Your task to perform on an android device: turn off airplane mode Image 0: 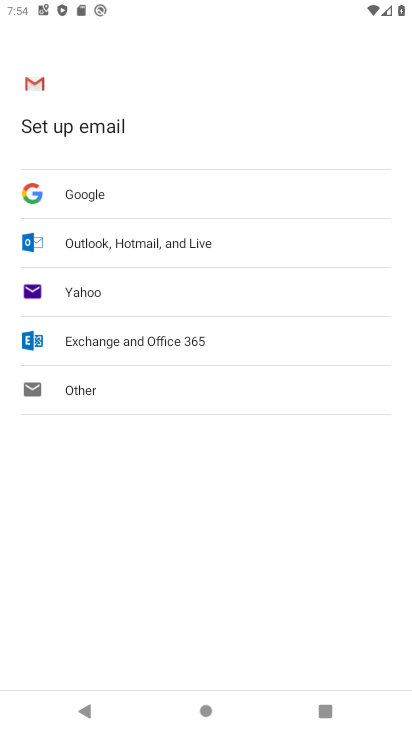
Step 0: press home button
Your task to perform on an android device: turn off airplane mode Image 1: 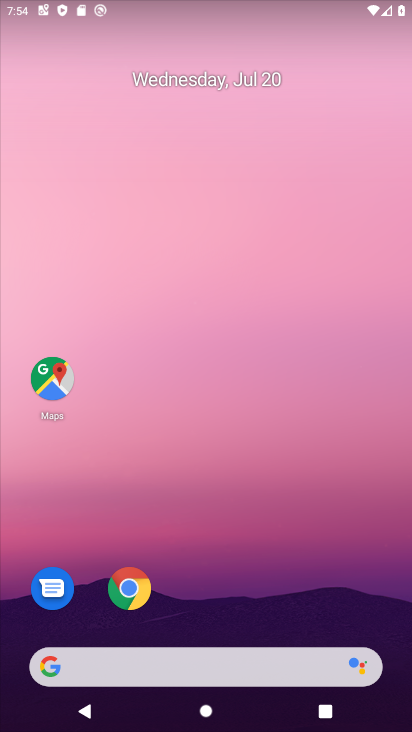
Step 1: drag from (139, 612) to (127, 177)
Your task to perform on an android device: turn off airplane mode Image 2: 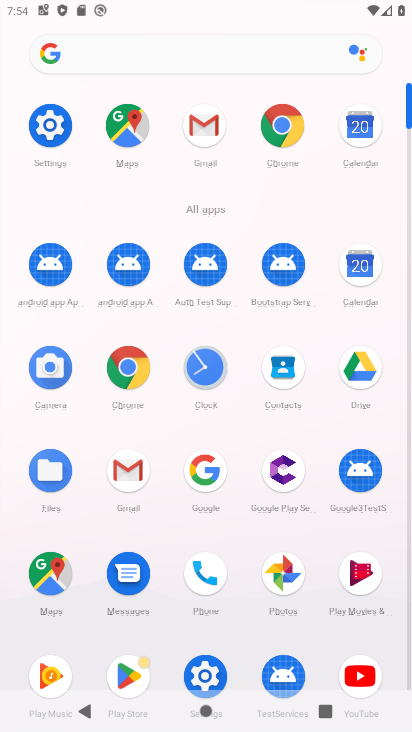
Step 2: click (48, 133)
Your task to perform on an android device: turn off airplane mode Image 3: 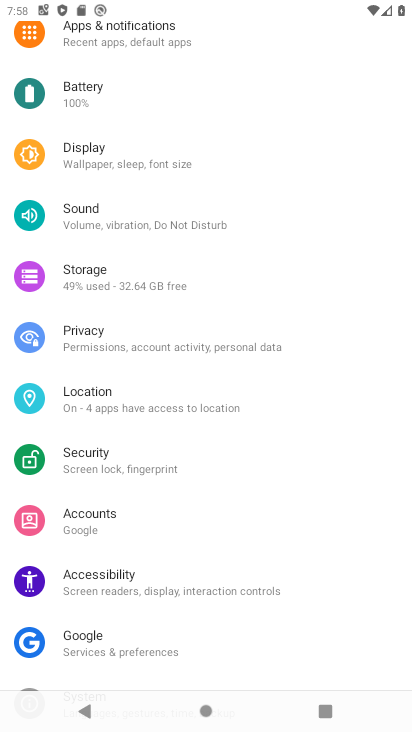
Step 3: drag from (217, 254) to (273, 496)
Your task to perform on an android device: turn off airplane mode Image 4: 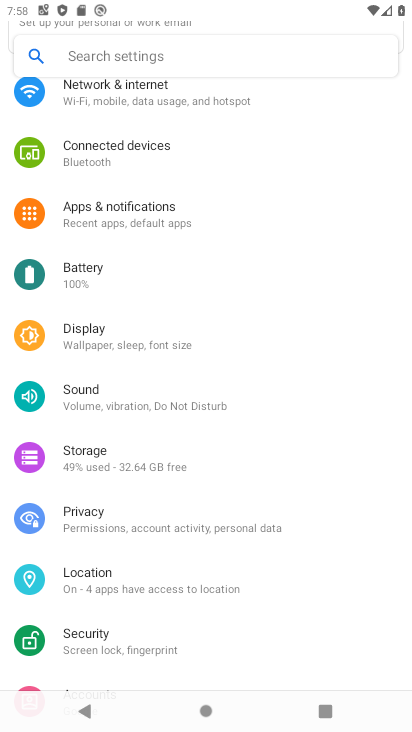
Step 4: click (262, 98)
Your task to perform on an android device: turn off airplane mode Image 5: 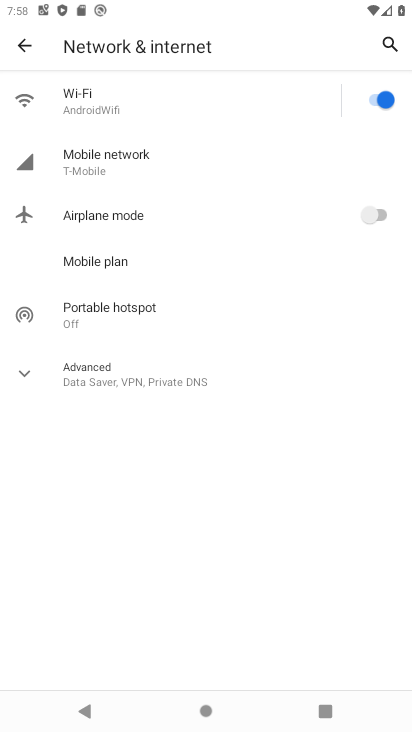
Step 5: task complete